Your task to perform on an android device: Find coffee shops on Maps Image 0: 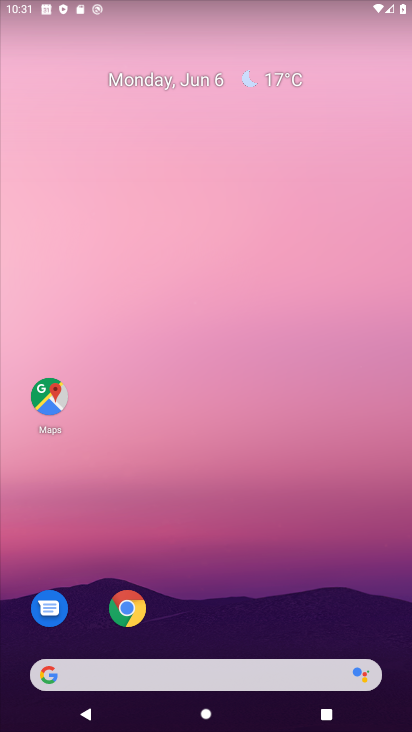
Step 0: click (176, 263)
Your task to perform on an android device: Find coffee shops on Maps Image 1: 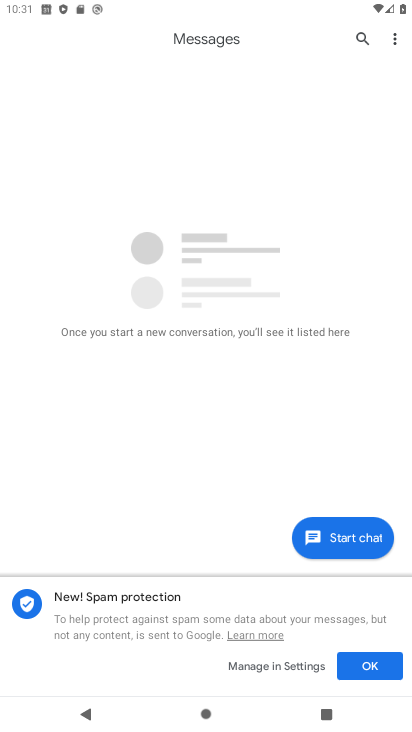
Step 1: press home button
Your task to perform on an android device: Find coffee shops on Maps Image 2: 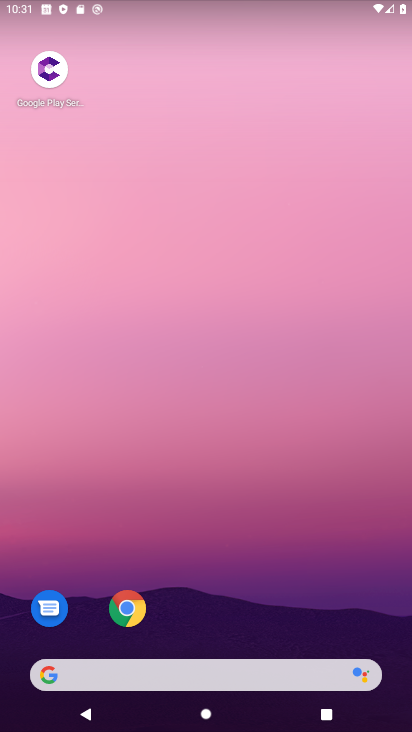
Step 2: drag from (265, 638) to (196, 99)
Your task to perform on an android device: Find coffee shops on Maps Image 3: 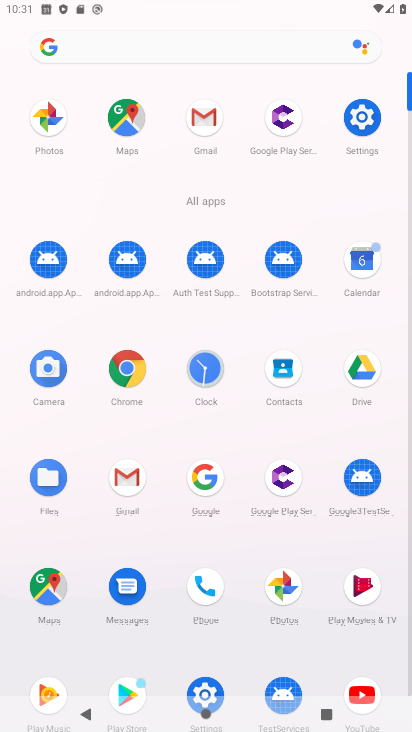
Step 3: click (131, 124)
Your task to perform on an android device: Find coffee shops on Maps Image 4: 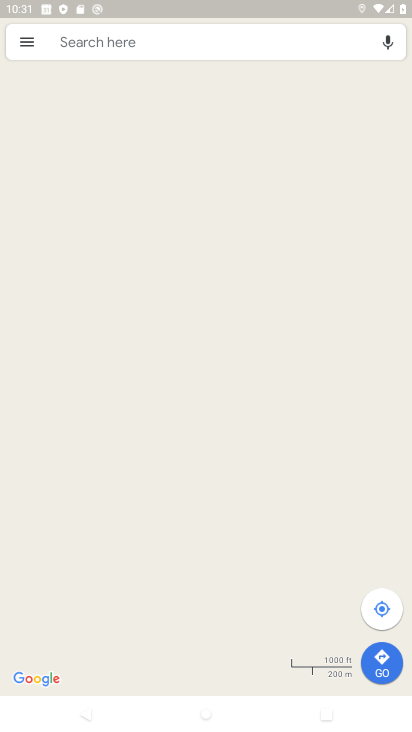
Step 4: click (116, 38)
Your task to perform on an android device: Find coffee shops on Maps Image 5: 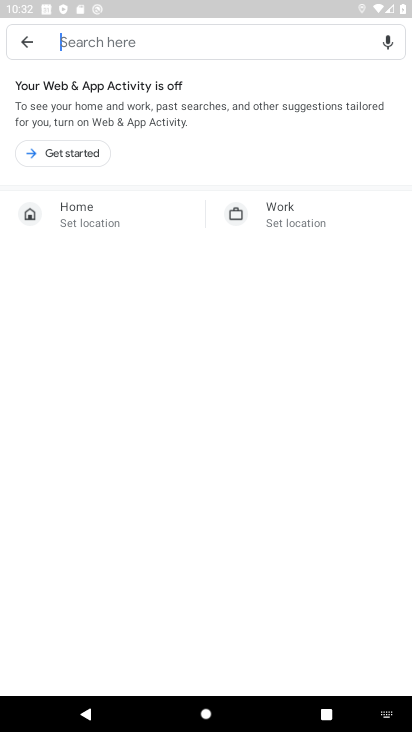
Step 5: click (116, 38)
Your task to perform on an android device: Find coffee shops on Maps Image 6: 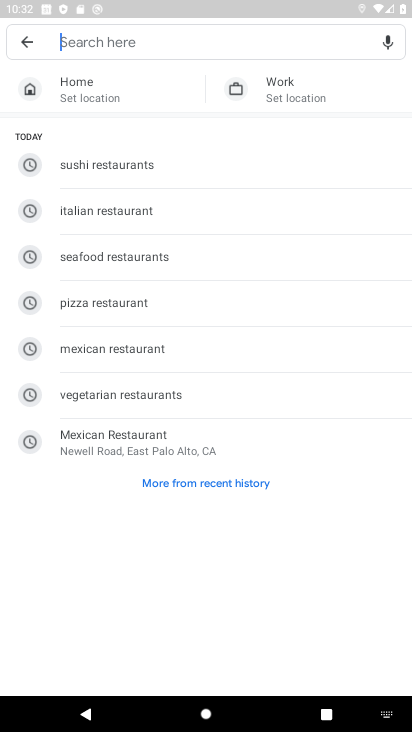
Step 6: type "coffee shops"
Your task to perform on an android device: Find coffee shops on Maps Image 7: 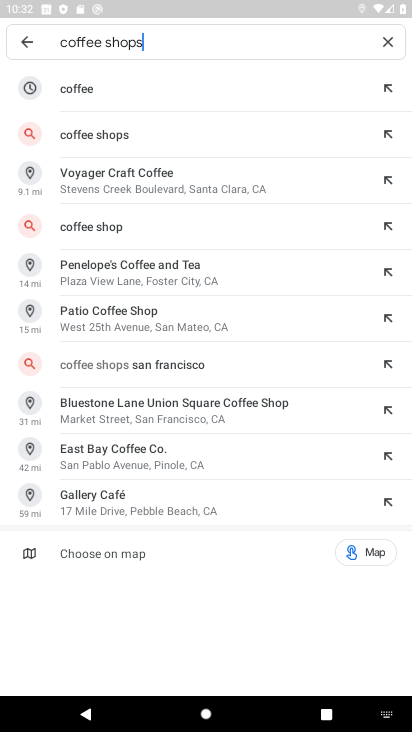
Step 7: click (133, 141)
Your task to perform on an android device: Find coffee shops on Maps Image 8: 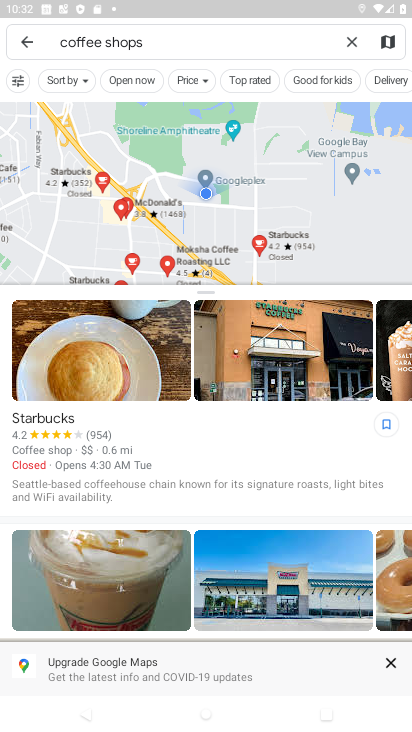
Step 8: task complete